Your task to perform on an android device: set an alarm Image 0: 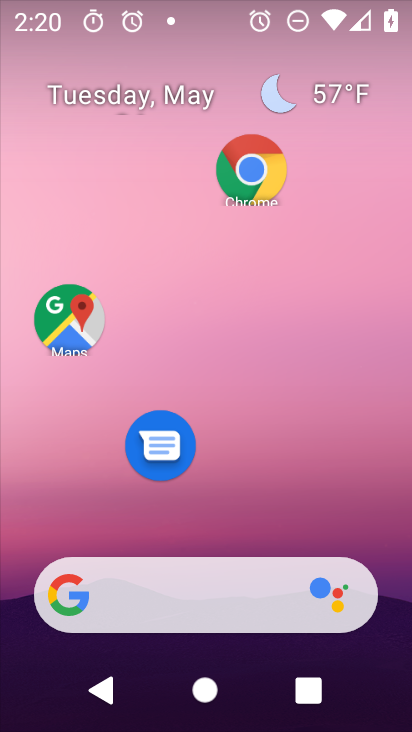
Step 0: drag from (226, 727) to (231, 8)
Your task to perform on an android device: set an alarm Image 1: 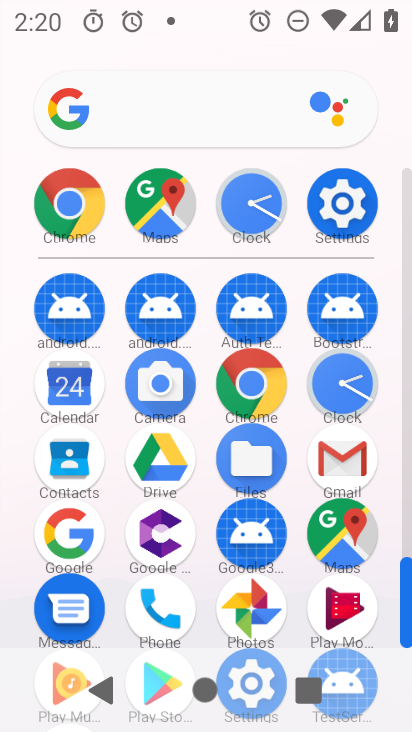
Step 1: click (342, 393)
Your task to perform on an android device: set an alarm Image 2: 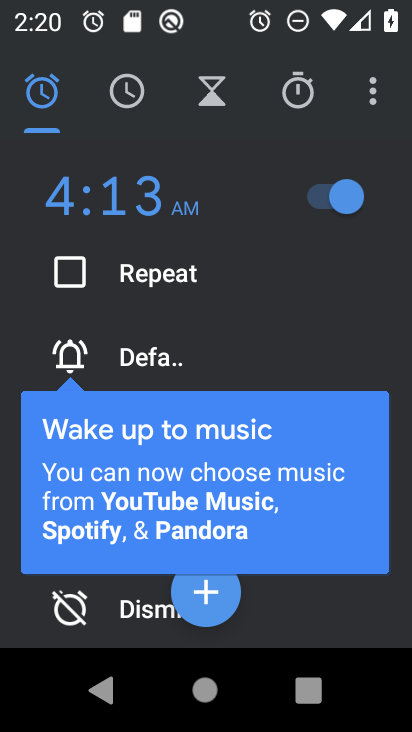
Step 2: click (201, 585)
Your task to perform on an android device: set an alarm Image 3: 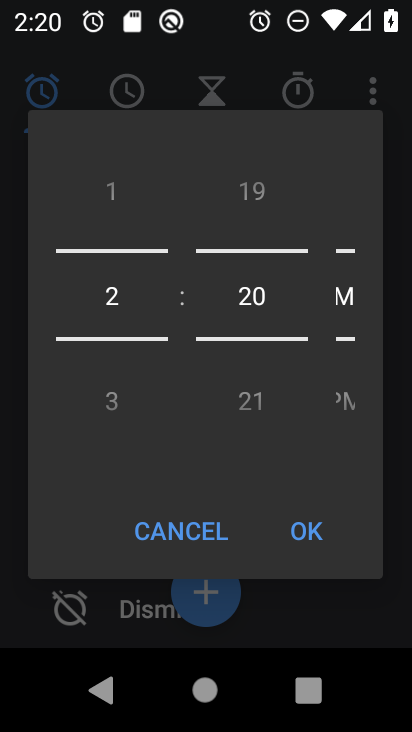
Step 3: drag from (119, 410) to (119, 120)
Your task to perform on an android device: set an alarm Image 4: 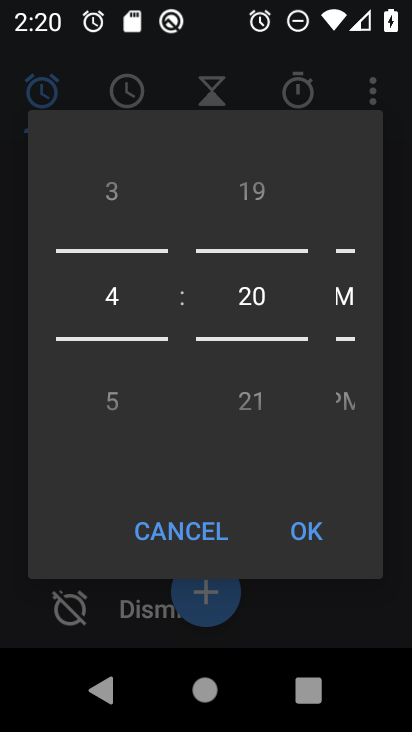
Step 4: drag from (243, 179) to (266, 519)
Your task to perform on an android device: set an alarm Image 5: 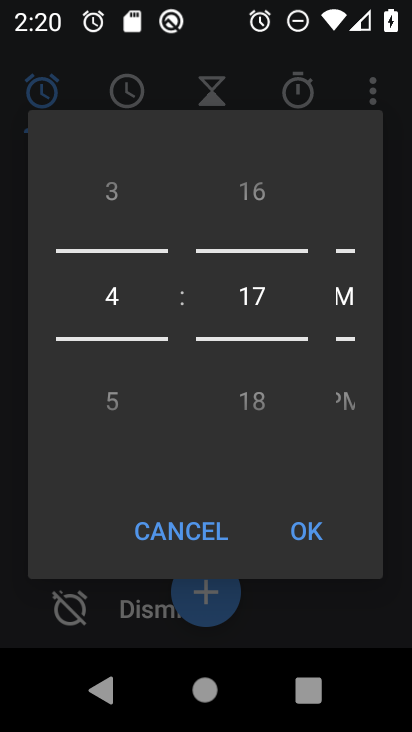
Step 5: click (304, 528)
Your task to perform on an android device: set an alarm Image 6: 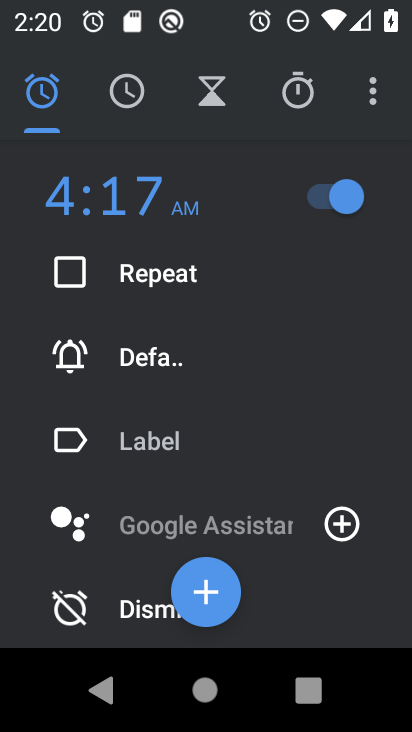
Step 6: task complete